Your task to perform on an android device: open a new tab in the chrome app Image 0: 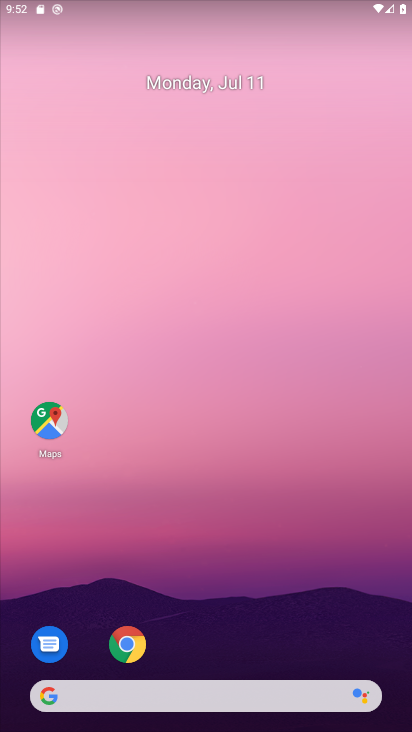
Step 0: drag from (174, 643) to (346, 2)
Your task to perform on an android device: open a new tab in the chrome app Image 1: 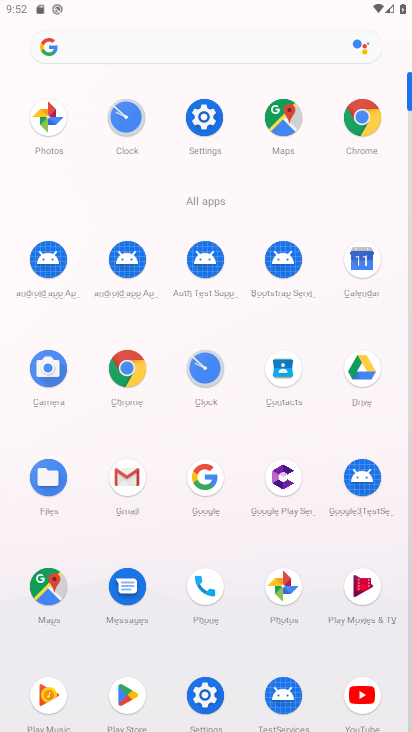
Step 1: click (130, 369)
Your task to perform on an android device: open a new tab in the chrome app Image 2: 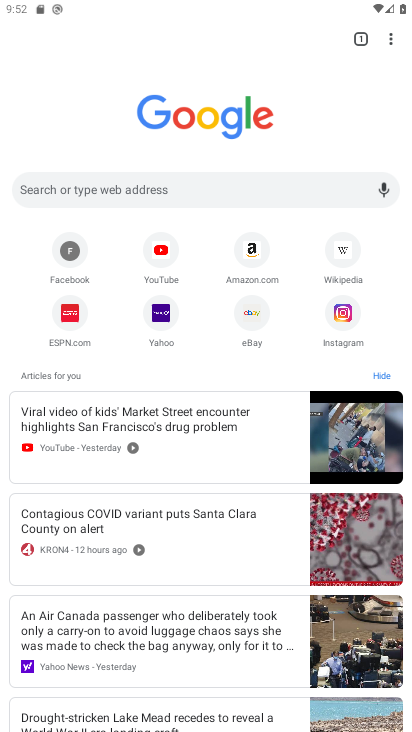
Step 2: task complete